Your task to perform on an android device: Add bose soundlink mini to the cart on ebay Image 0: 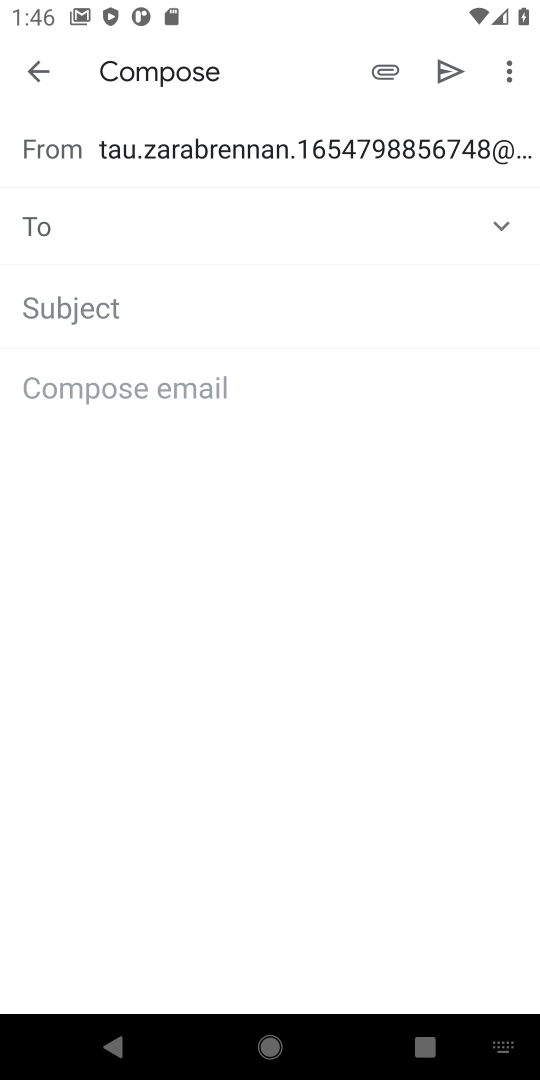
Step 0: press home button
Your task to perform on an android device: Add bose soundlink mini to the cart on ebay Image 1: 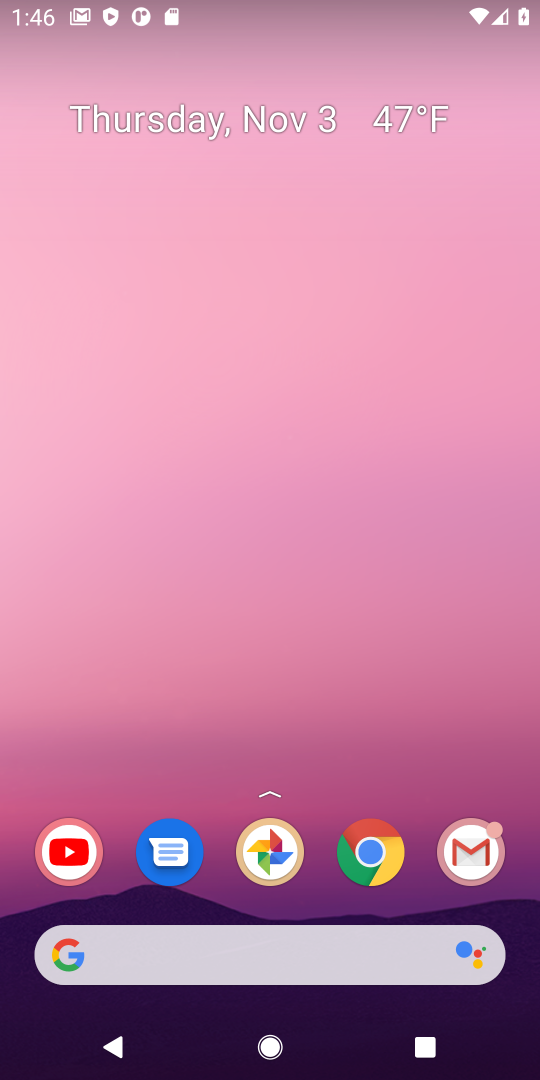
Step 1: click (372, 860)
Your task to perform on an android device: Add bose soundlink mini to the cart on ebay Image 2: 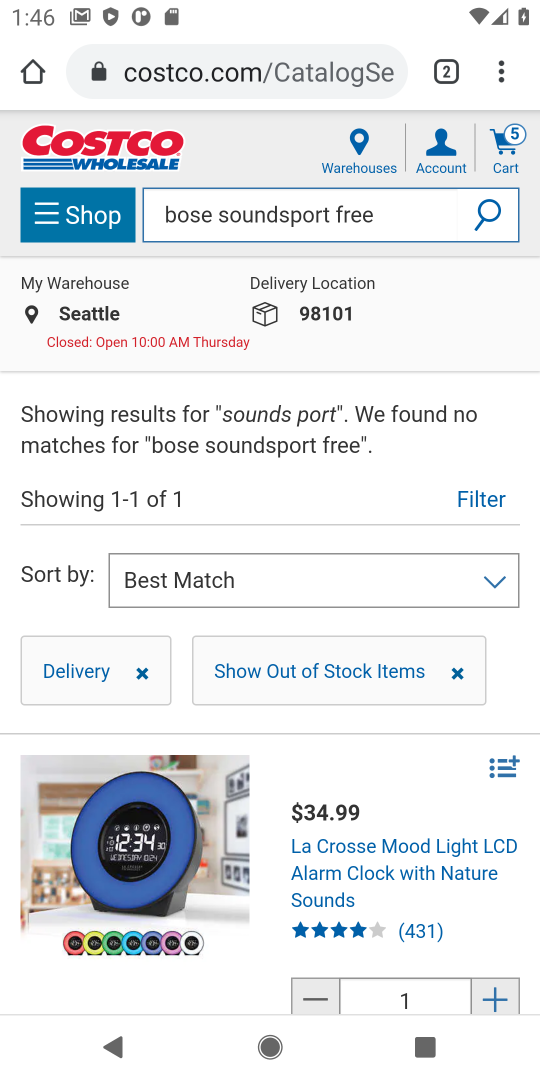
Step 2: click (226, 80)
Your task to perform on an android device: Add bose soundlink mini to the cart on ebay Image 3: 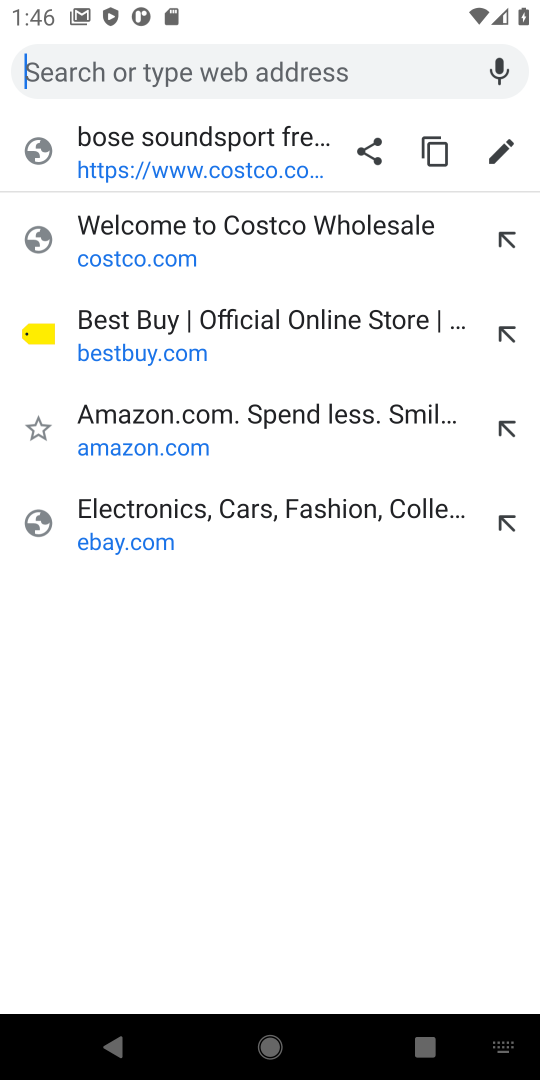
Step 3: click (141, 545)
Your task to perform on an android device: Add bose soundlink mini to the cart on ebay Image 4: 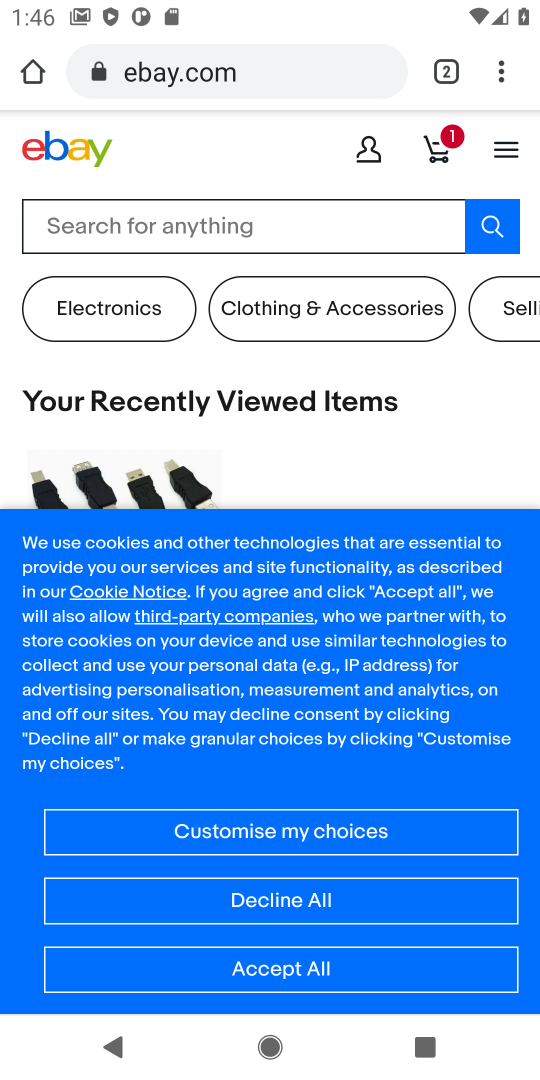
Step 4: click (189, 226)
Your task to perform on an android device: Add bose soundlink mini to the cart on ebay Image 5: 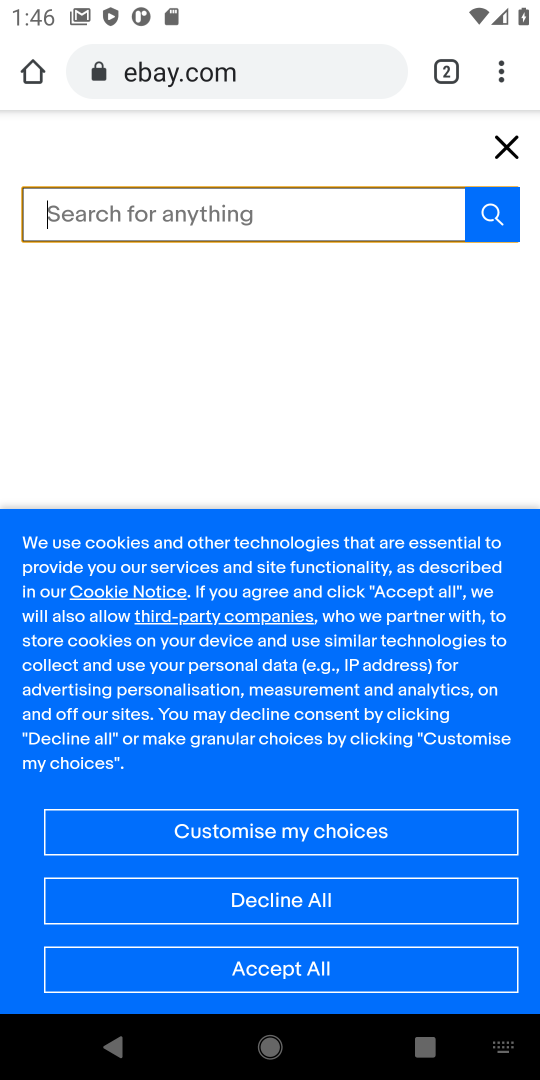
Step 5: type "bose soundlink mini"
Your task to perform on an android device: Add bose soundlink mini to the cart on ebay Image 6: 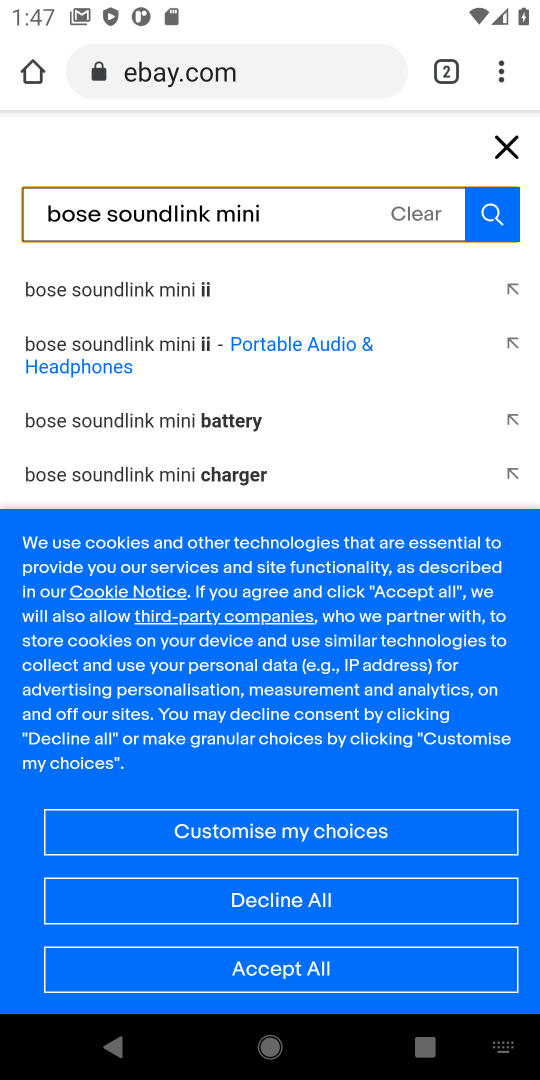
Step 6: click (498, 217)
Your task to perform on an android device: Add bose soundlink mini to the cart on ebay Image 7: 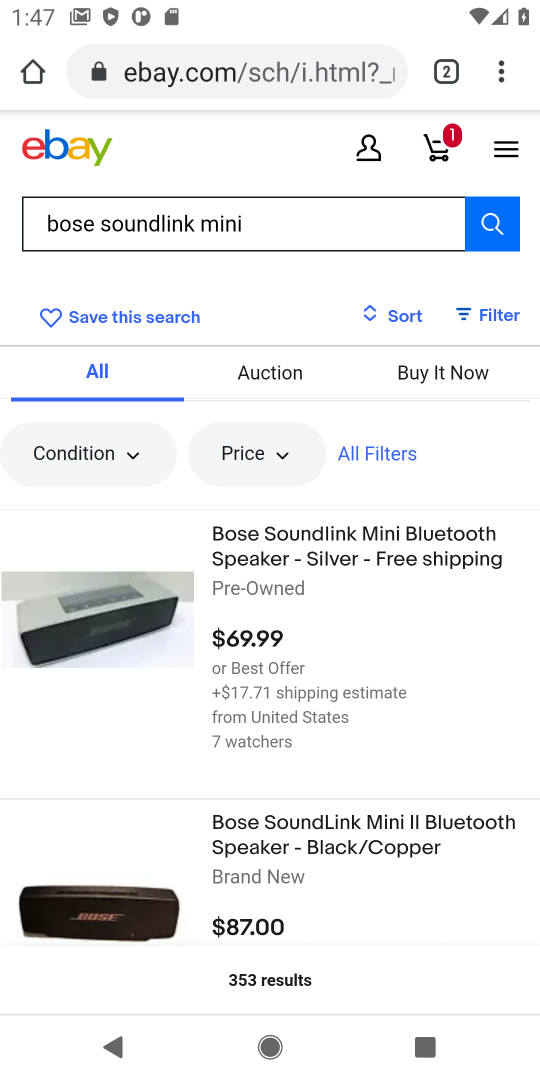
Step 7: click (290, 605)
Your task to perform on an android device: Add bose soundlink mini to the cart on ebay Image 8: 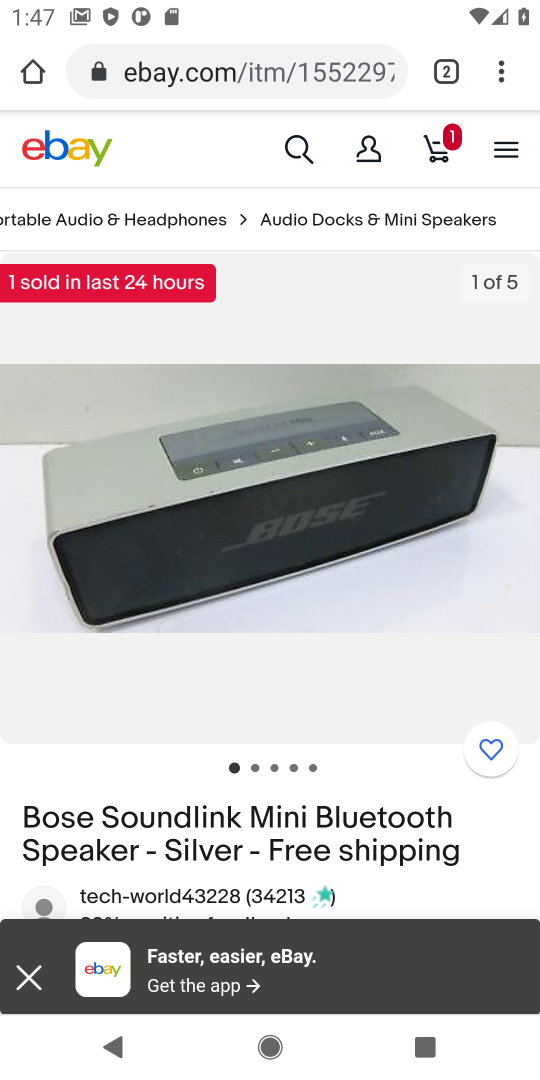
Step 8: drag from (312, 771) to (325, 391)
Your task to perform on an android device: Add bose soundlink mini to the cart on ebay Image 9: 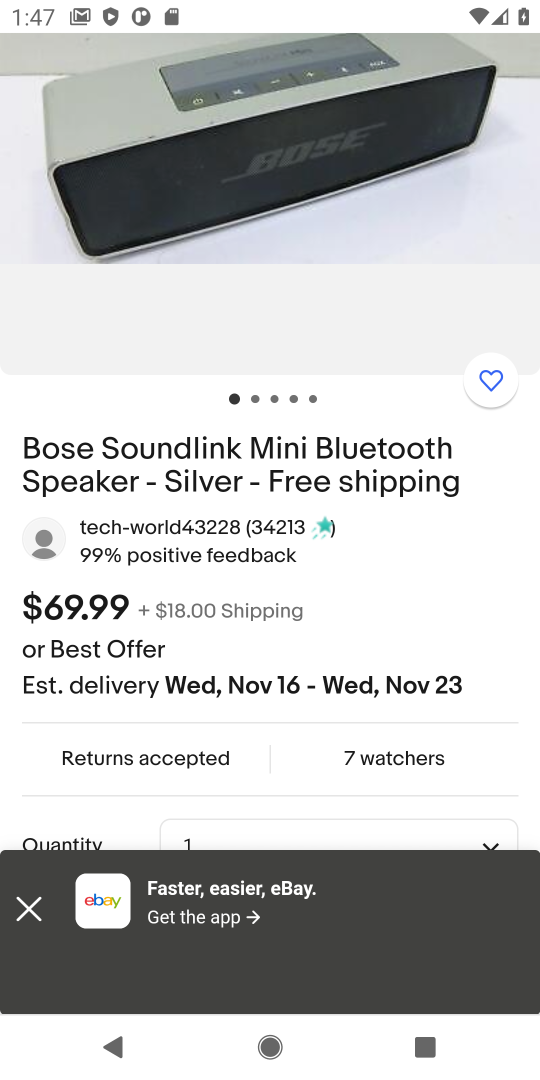
Step 9: drag from (317, 685) to (337, 248)
Your task to perform on an android device: Add bose soundlink mini to the cart on ebay Image 10: 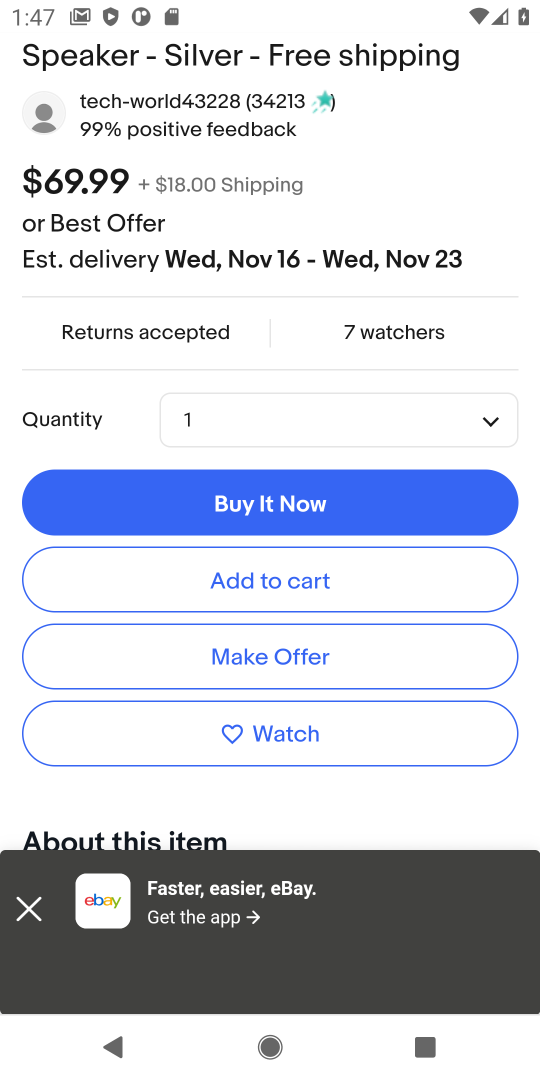
Step 10: click (285, 576)
Your task to perform on an android device: Add bose soundlink mini to the cart on ebay Image 11: 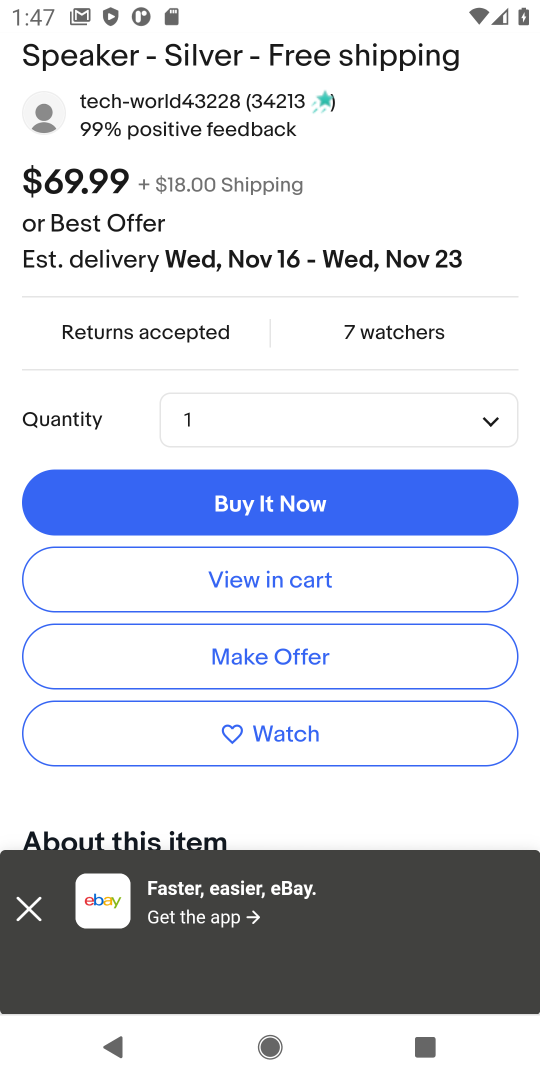
Step 11: task complete